Your task to perform on an android device: change timer sound Image 0: 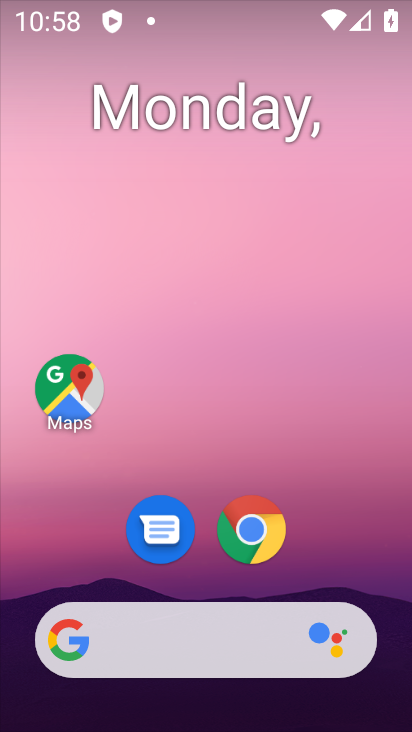
Step 0: drag from (202, 550) to (192, 144)
Your task to perform on an android device: change timer sound Image 1: 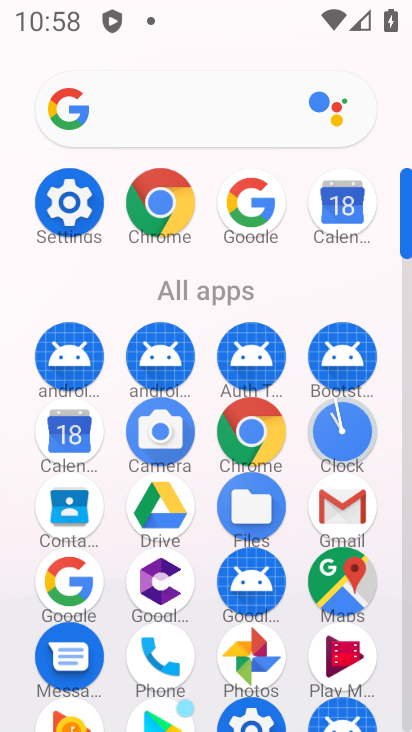
Step 1: click (331, 429)
Your task to perform on an android device: change timer sound Image 2: 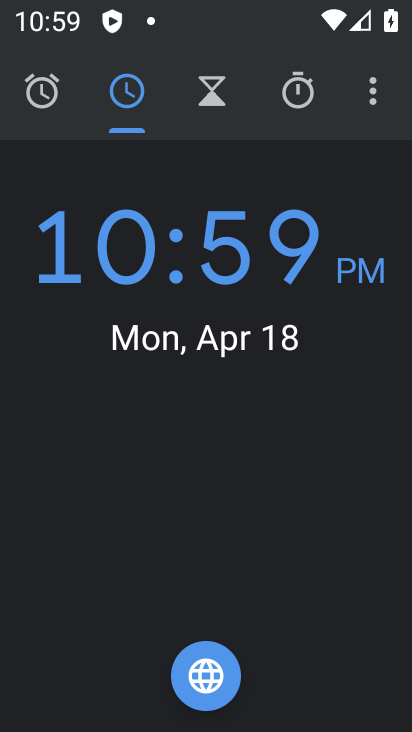
Step 2: click (377, 93)
Your task to perform on an android device: change timer sound Image 3: 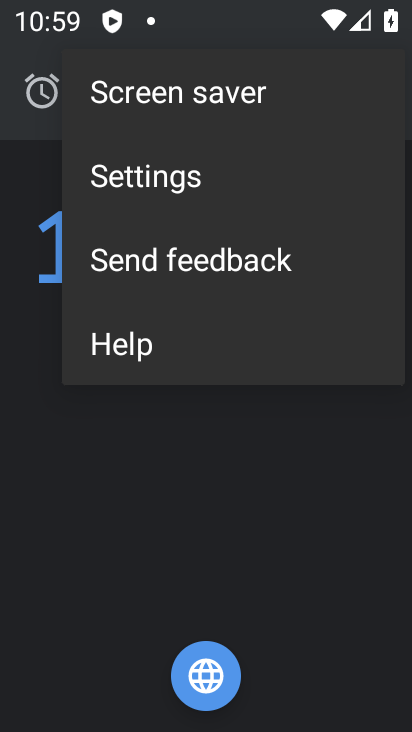
Step 3: click (183, 176)
Your task to perform on an android device: change timer sound Image 4: 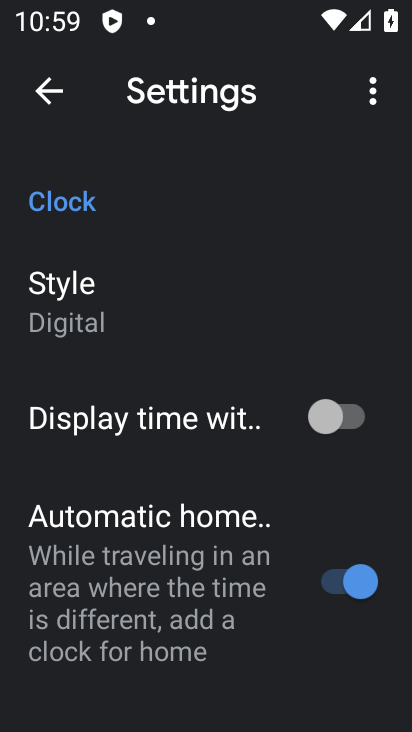
Step 4: drag from (186, 602) to (190, 209)
Your task to perform on an android device: change timer sound Image 5: 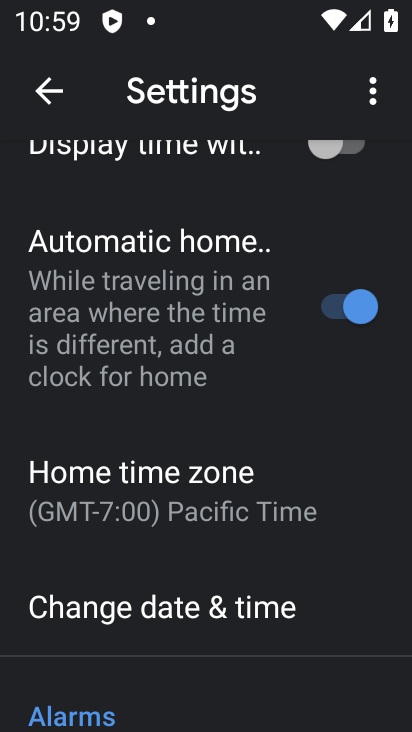
Step 5: drag from (200, 558) to (205, 202)
Your task to perform on an android device: change timer sound Image 6: 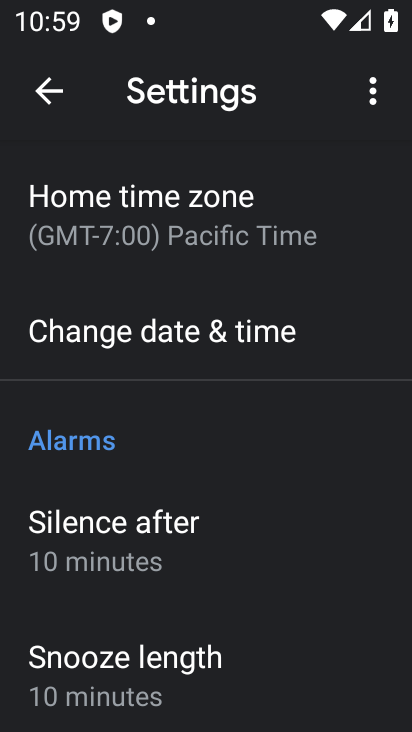
Step 6: drag from (209, 581) to (209, 209)
Your task to perform on an android device: change timer sound Image 7: 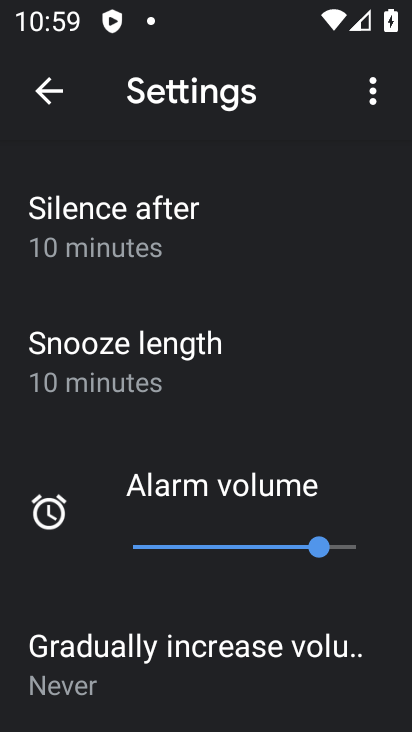
Step 7: drag from (192, 535) to (207, 215)
Your task to perform on an android device: change timer sound Image 8: 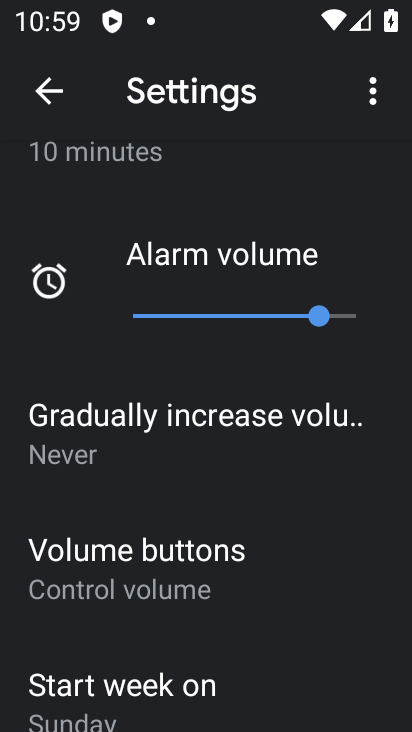
Step 8: drag from (197, 561) to (204, 238)
Your task to perform on an android device: change timer sound Image 9: 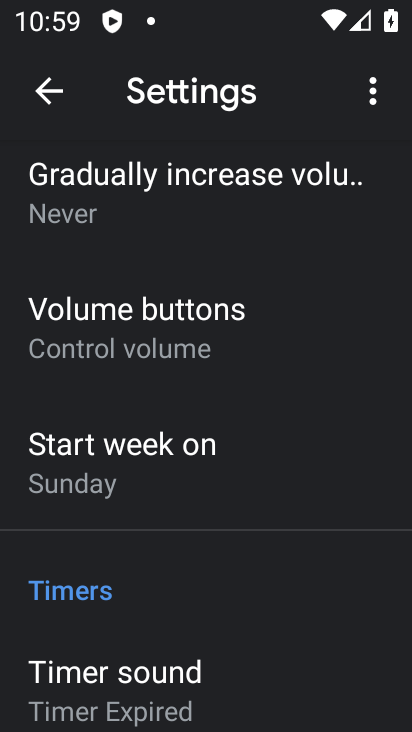
Step 9: click (176, 454)
Your task to perform on an android device: change timer sound Image 10: 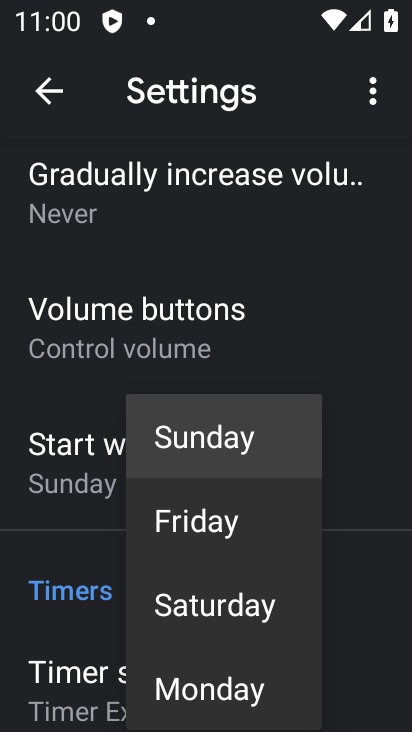
Step 10: click (59, 672)
Your task to perform on an android device: change timer sound Image 11: 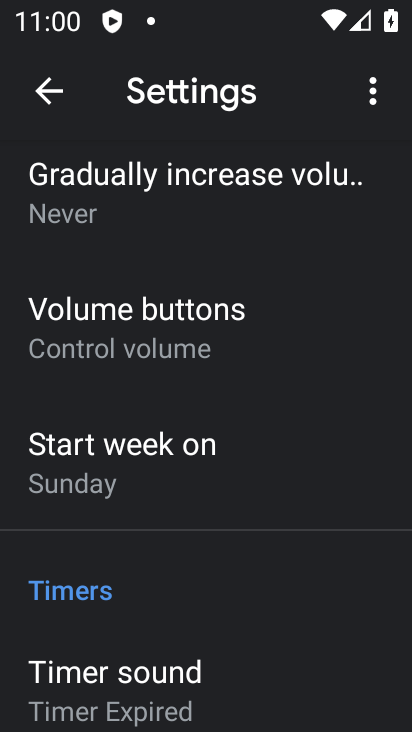
Step 11: click (90, 663)
Your task to perform on an android device: change timer sound Image 12: 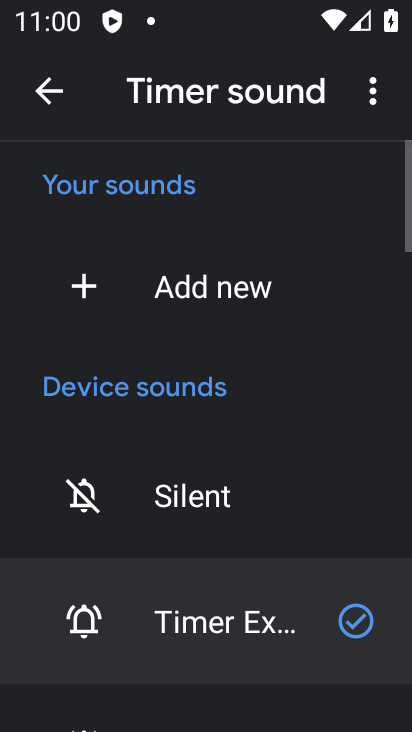
Step 12: drag from (223, 527) to (221, 339)
Your task to perform on an android device: change timer sound Image 13: 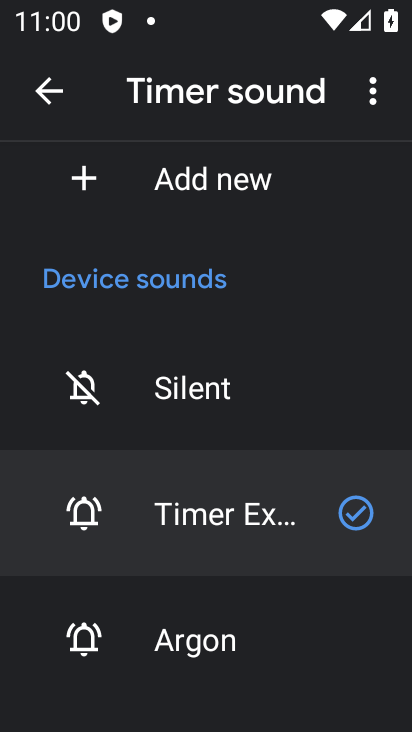
Step 13: click (202, 620)
Your task to perform on an android device: change timer sound Image 14: 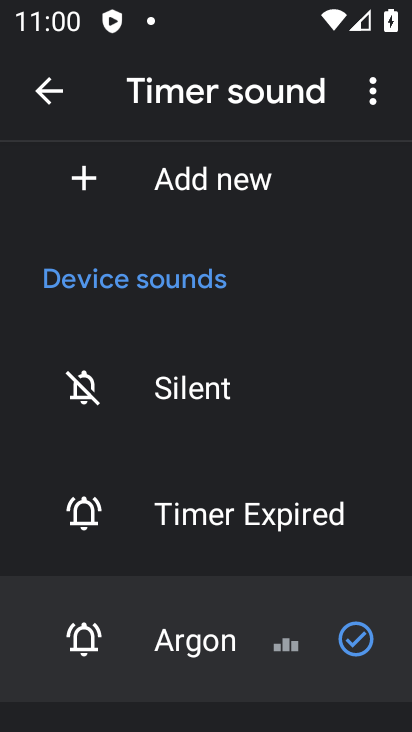
Step 14: task complete